Your task to perform on an android device: change keyboard looks Image 0: 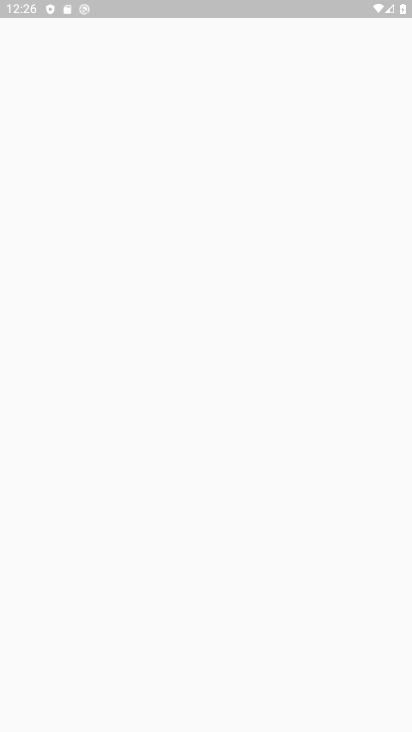
Step 0: press home button
Your task to perform on an android device: change keyboard looks Image 1: 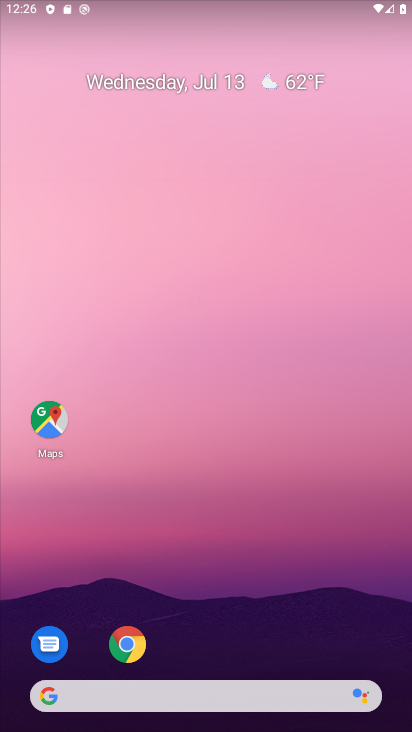
Step 1: drag from (224, 655) to (116, 91)
Your task to perform on an android device: change keyboard looks Image 2: 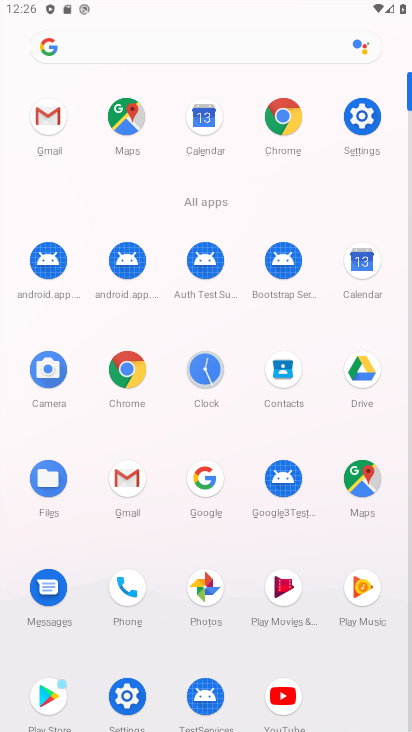
Step 2: click (368, 116)
Your task to perform on an android device: change keyboard looks Image 3: 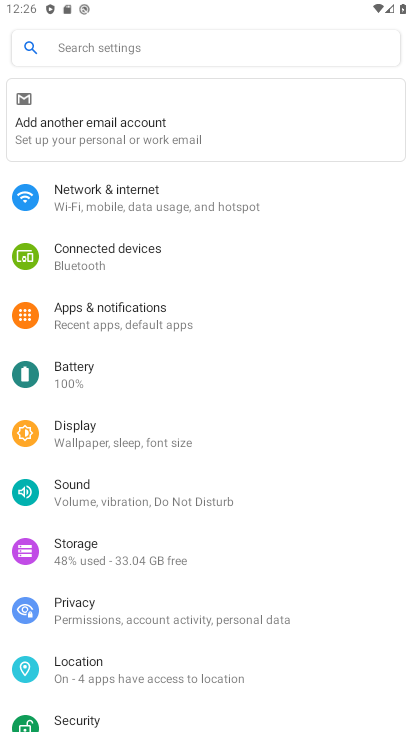
Step 3: drag from (271, 598) to (233, 285)
Your task to perform on an android device: change keyboard looks Image 4: 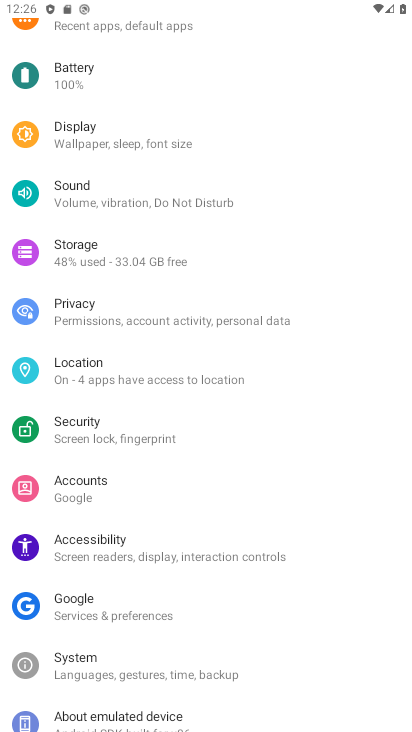
Step 4: drag from (142, 541) to (123, 361)
Your task to perform on an android device: change keyboard looks Image 5: 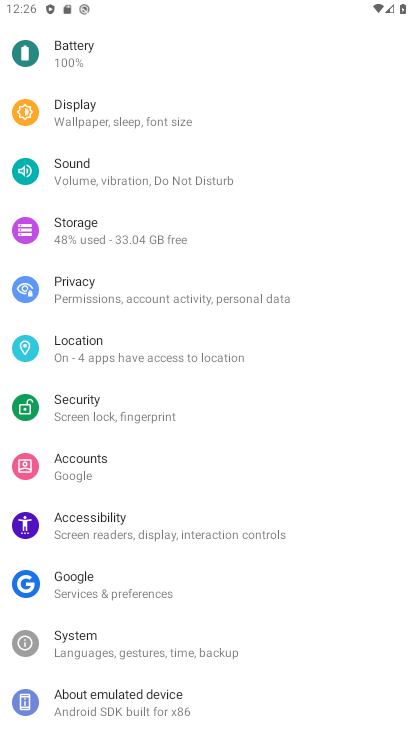
Step 5: click (130, 712)
Your task to perform on an android device: change keyboard looks Image 6: 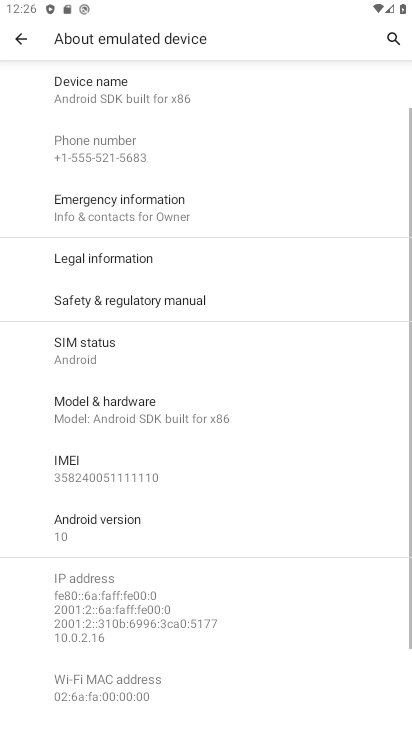
Step 6: click (24, 28)
Your task to perform on an android device: change keyboard looks Image 7: 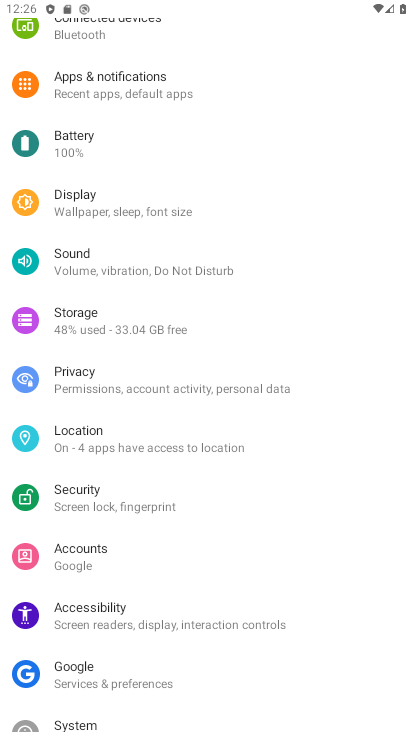
Step 7: click (61, 714)
Your task to perform on an android device: change keyboard looks Image 8: 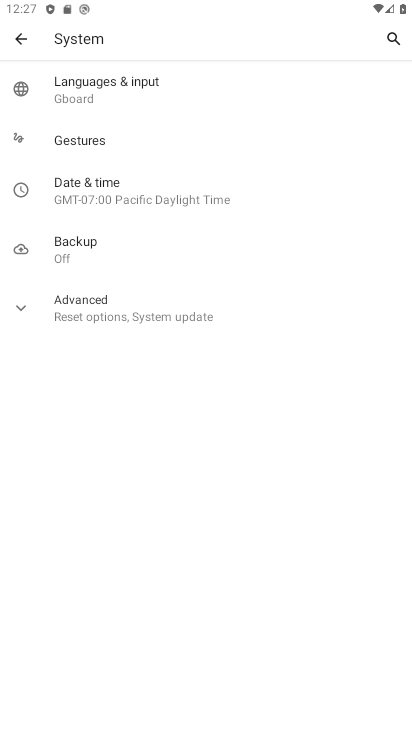
Step 8: click (85, 97)
Your task to perform on an android device: change keyboard looks Image 9: 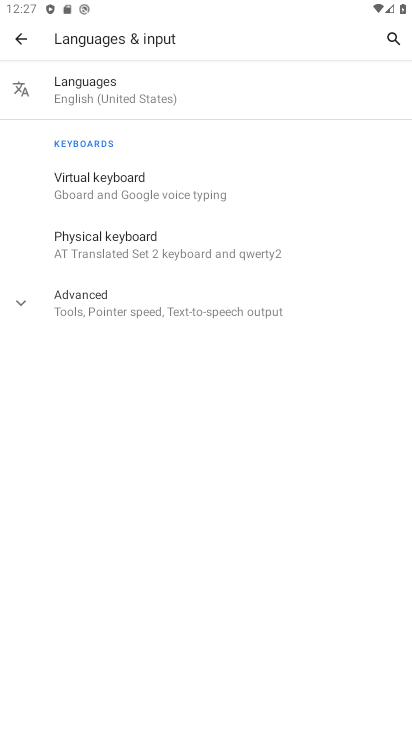
Step 9: click (91, 177)
Your task to perform on an android device: change keyboard looks Image 10: 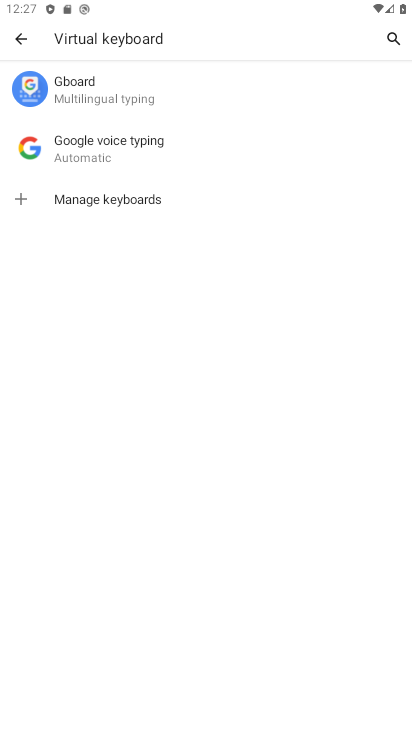
Step 10: click (74, 83)
Your task to perform on an android device: change keyboard looks Image 11: 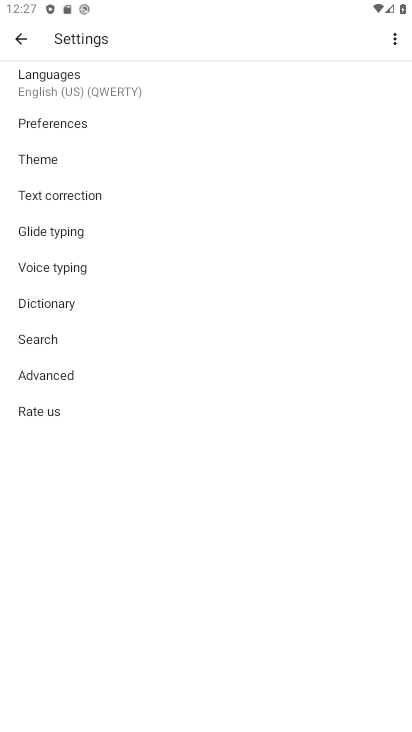
Step 11: click (40, 156)
Your task to perform on an android device: change keyboard looks Image 12: 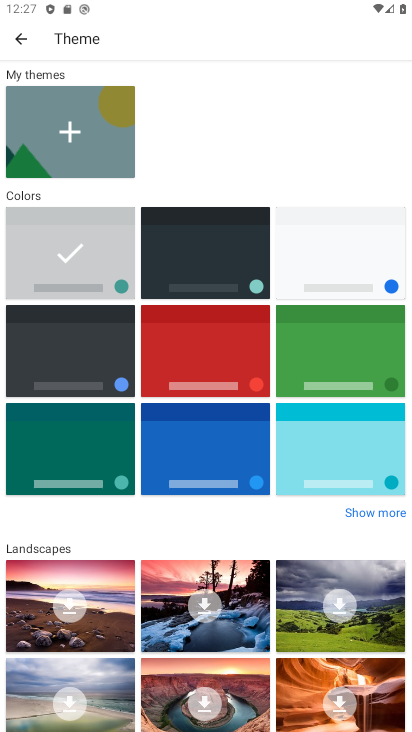
Step 12: click (167, 254)
Your task to perform on an android device: change keyboard looks Image 13: 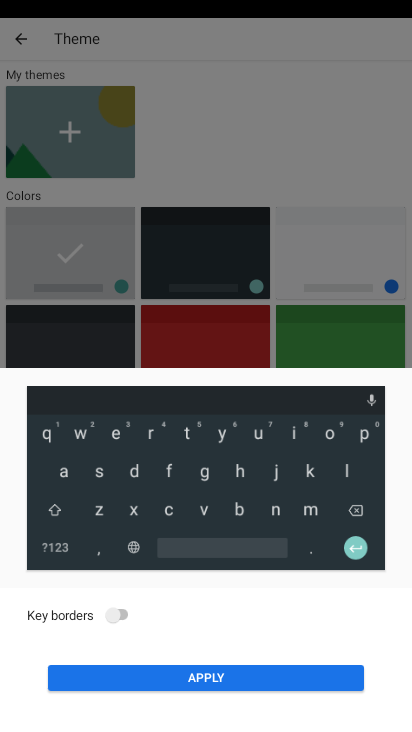
Step 13: click (220, 671)
Your task to perform on an android device: change keyboard looks Image 14: 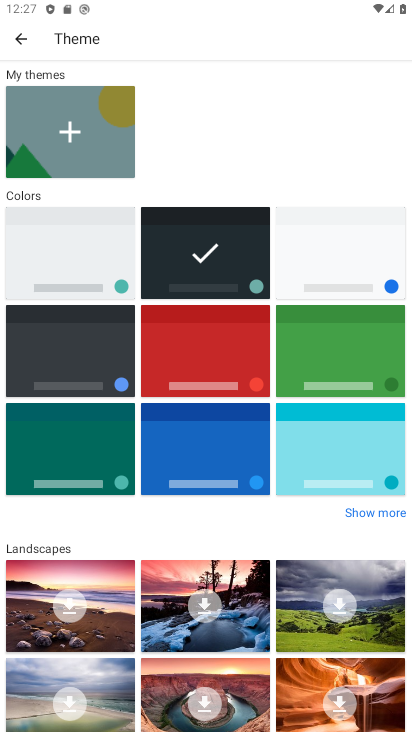
Step 14: task complete